Your task to perform on an android device: Go to wifi settings Image 0: 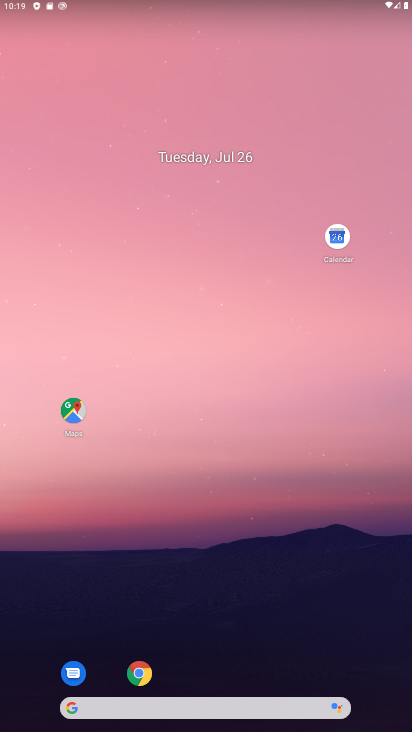
Step 0: click (169, 121)
Your task to perform on an android device: Go to wifi settings Image 1: 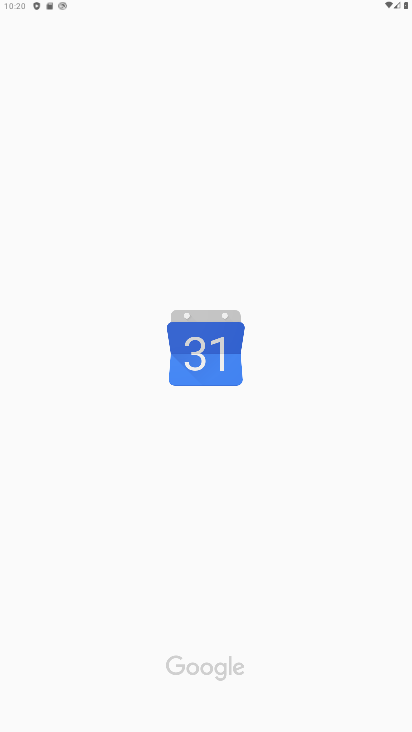
Step 1: drag from (213, 43) to (245, 18)
Your task to perform on an android device: Go to wifi settings Image 2: 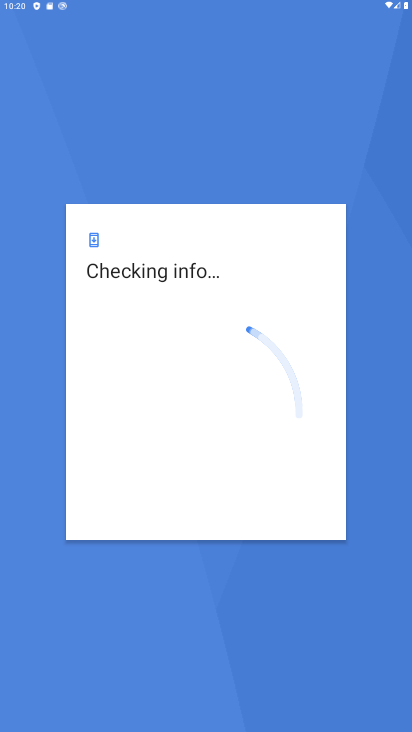
Step 2: press back button
Your task to perform on an android device: Go to wifi settings Image 3: 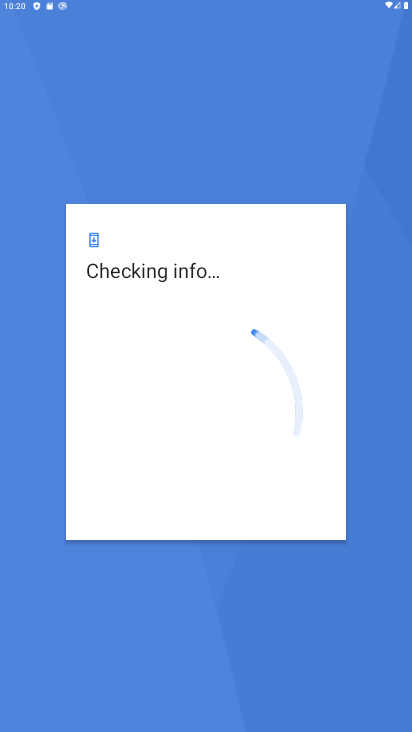
Step 3: press back button
Your task to perform on an android device: Go to wifi settings Image 4: 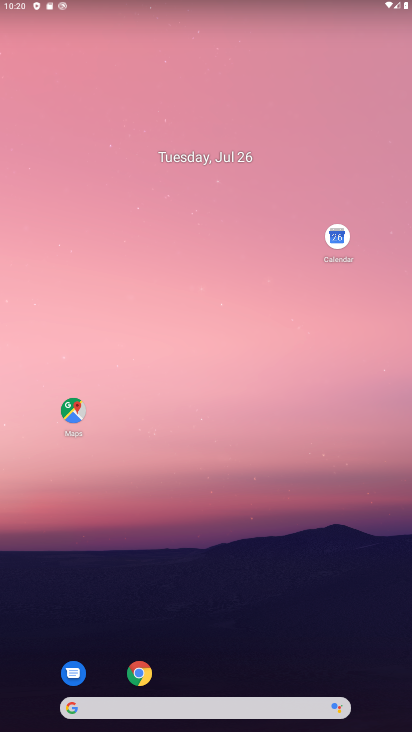
Step 4: press home button
Your task to perform on an android device: Go to wifi settings Image 5: 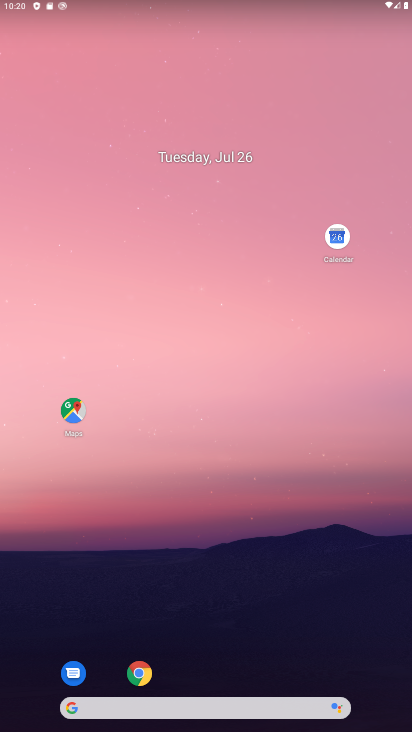
Step 5: click (145, 60)
Your task to perform on an android device: Go to wifi settings Image 6: 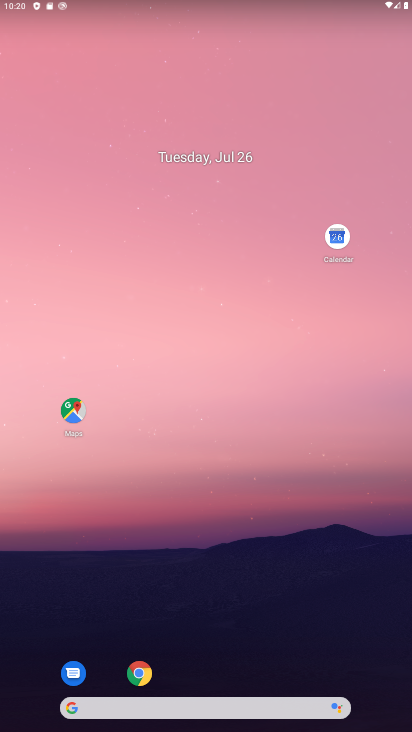
Step 6: click (232, 11)
Your task to perform on an android device: Go to wifi settings Image 7: 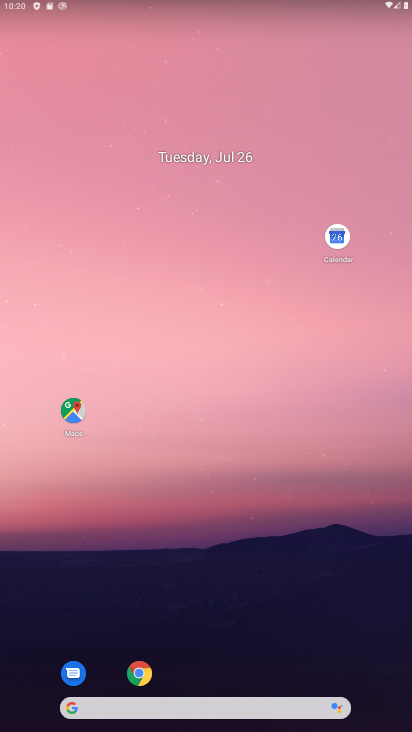
Step 7: click (173, 114)
Your task to perform on an android device: Go to wifi settings Image 8: 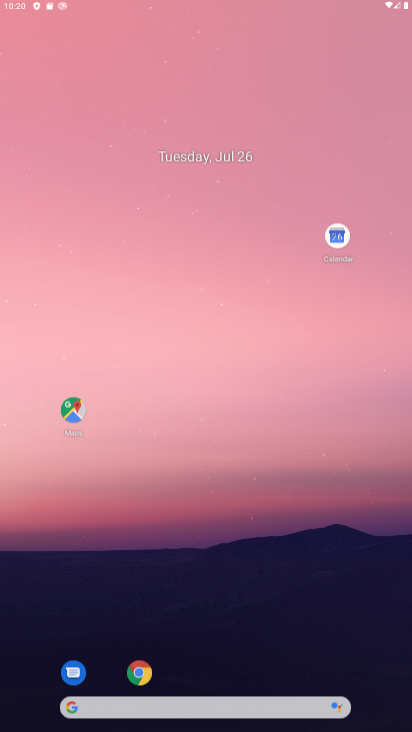
Step 8: click (154, 143)
Your task to perform on an android device: Go to wifi settings Image 9: 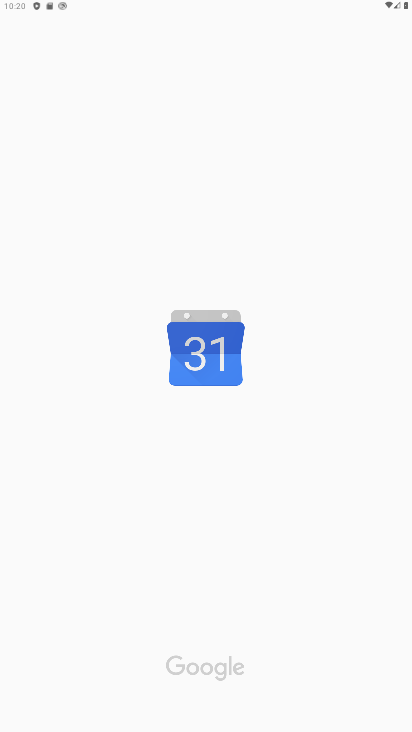
Step 9: click (120, 53)
Your task to perform on an android device: Go to wifi settings Image 10: 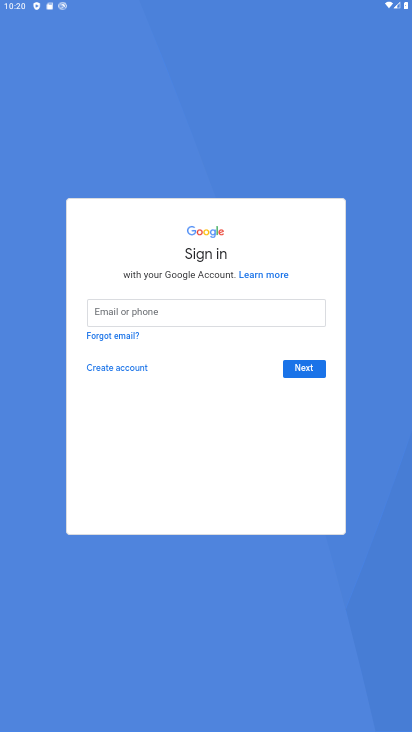
Step 10: click (118, 106)
Your task to perform on an android device: Go to wifi settings Image 11: 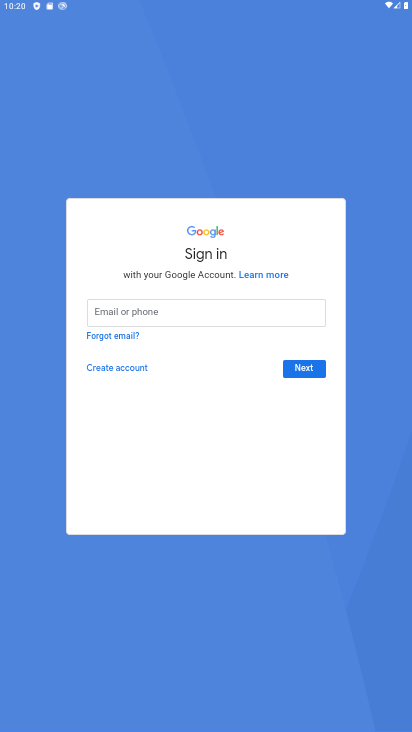
Step 11: click (117, 107)
Your task to perform on an android device: Go to wifi settings Image 12: 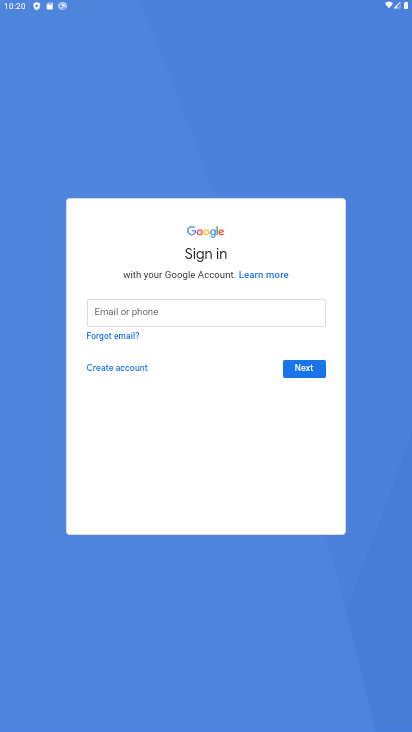
Step 12: press back button
Your task to perform on an android device: Go to wifi settings Image 13: 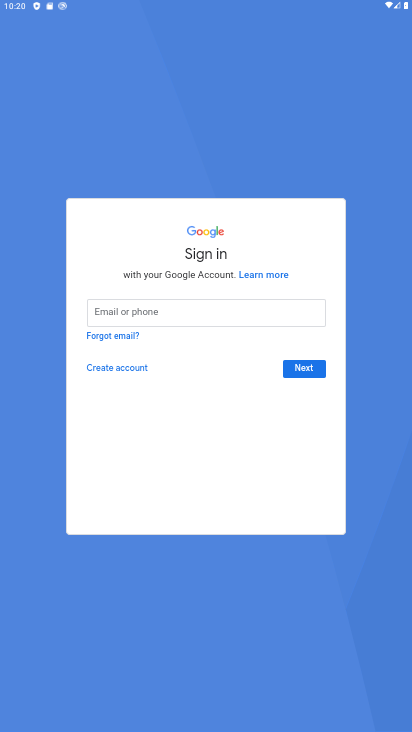
Step 13: press back button
Your task to perform on an android device: Go to wifi settings Image 14: 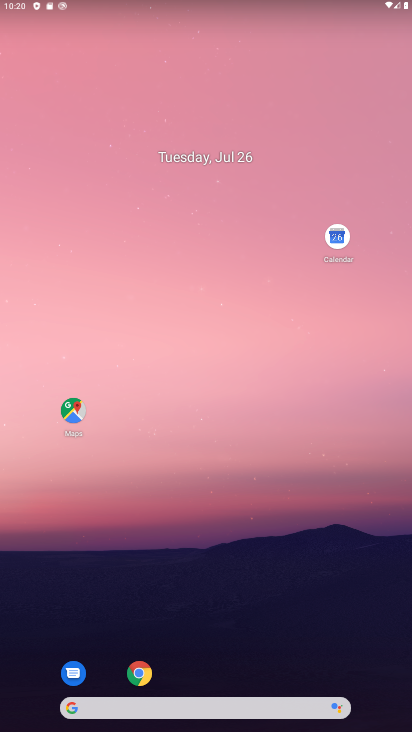
Step 14: drag from (189, 394) to (119, 35)
Your task to perform on an android device: Go to wifi settings Image 15: 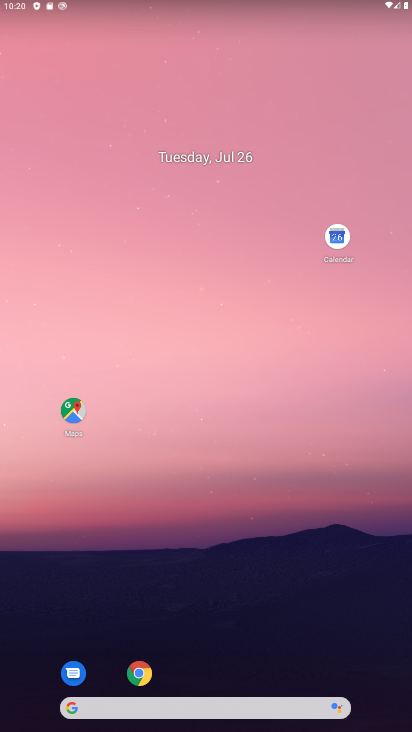
Step 15: drag from (197, 519) to (137, 103)
Your task to perform on an android device: Go to wifi settings Image 16: 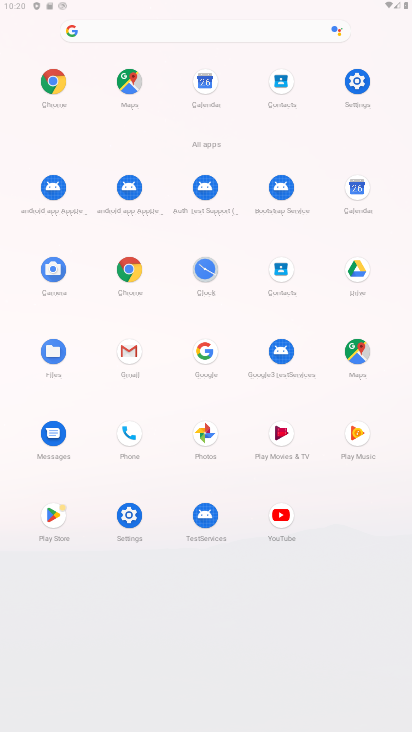
Step 16: drag from (195, 451) to (132, 20)
Your task to perform on an android device: Go to wifi settings Image 17: 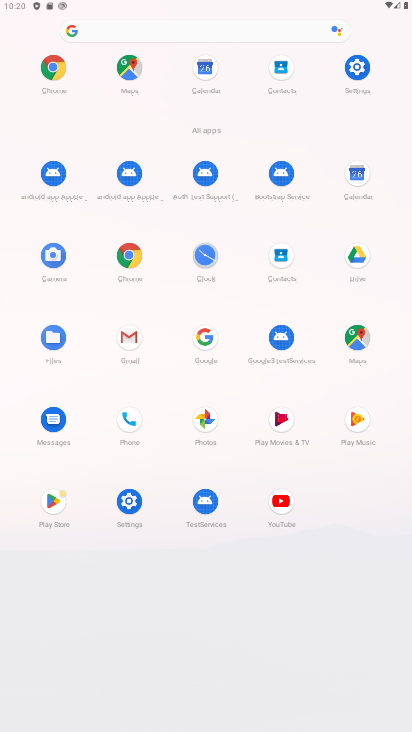
Step 17: drag from (271, 509) to (212, 148)
Your task to perform on an android device: Go to wifi settings Image 18: 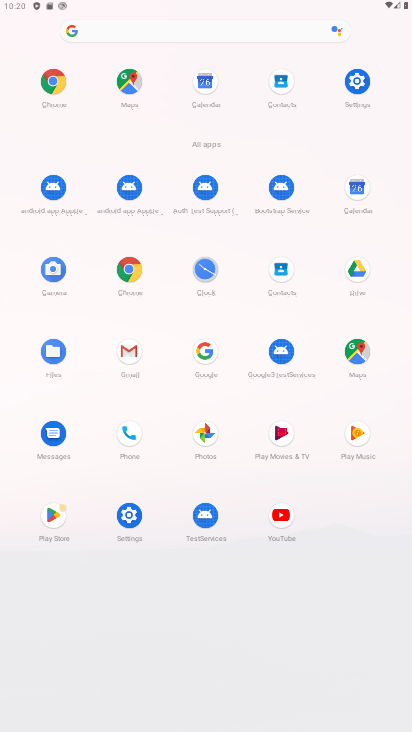
Step 18: click (129, 514)
Your task to perform on an android device: Go to wifi settings Image 19: 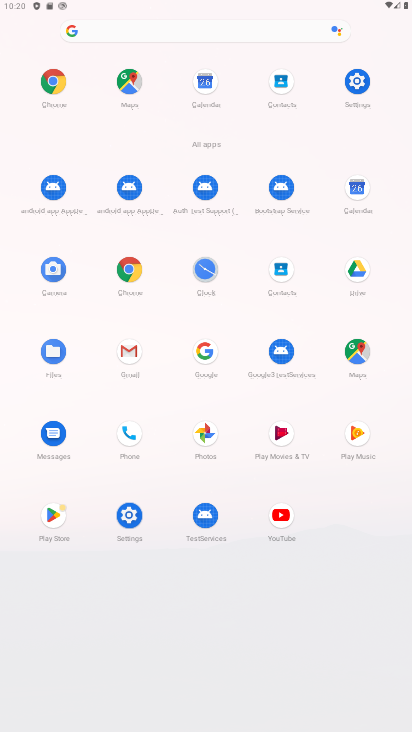
Step 19: click (129, 514)
Your task to perform on an android device: Go to wifi settings Image 20: 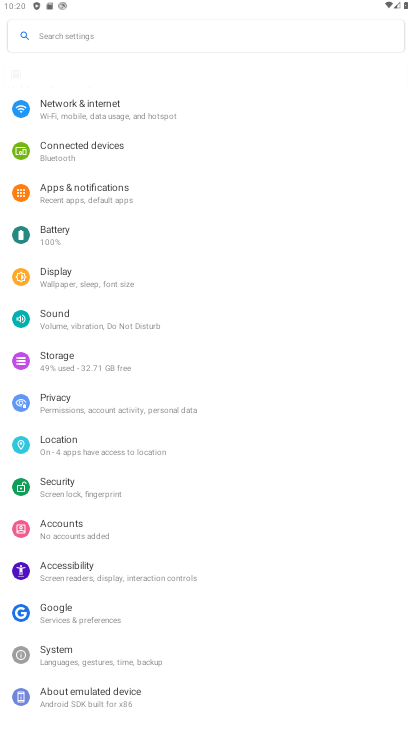
Step 20: click (134, 502)
Your task to perform on an android device: Go to wifi settings Image 21: 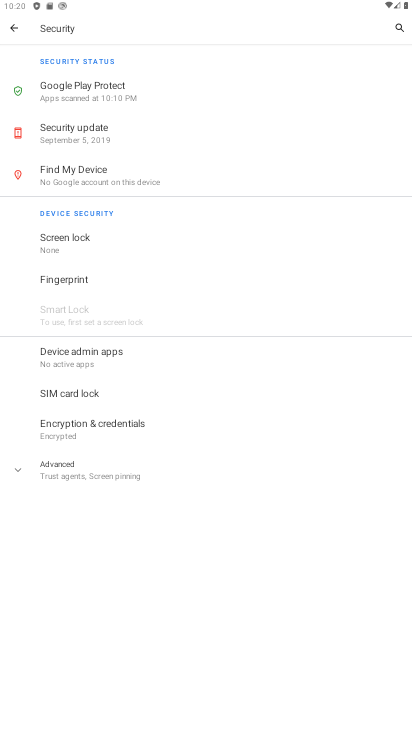
Step 21: click (15, 27)
Your task to perform on an android device: Go to wifi settings Image 22: 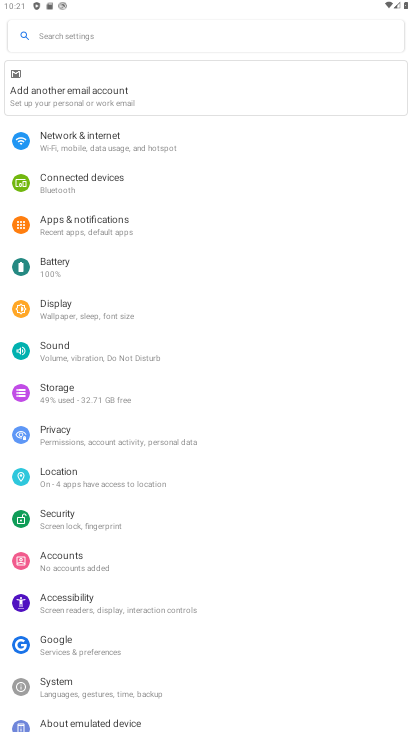
Step 22: drag from (109, 537) to (114, 201)
Your task to perform on an android device: Go to wifi settings Image 23: 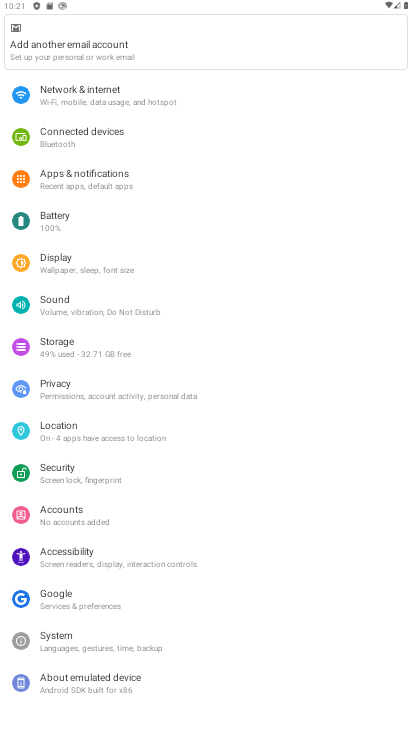
Step 23: drag from (155, 455) to (119, 237)
Your task to perform on an android device: Go to wifi settings Image 24: 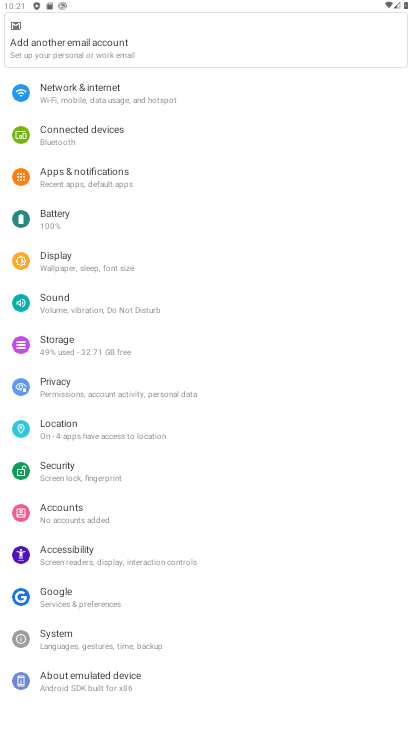
Step 24: click (91, 177)
Your task to perform on an android device: Go to wifi settings Image 25: 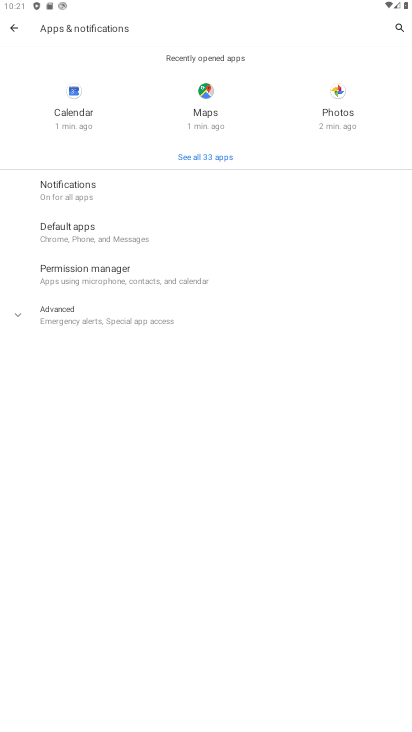
Step 25: click (9, 21)
Your task to perform on an android device: Go to wifi settings Image 26: 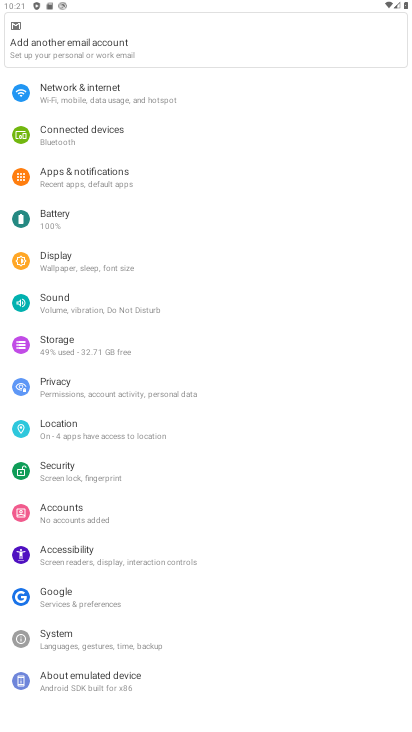
Step 26: drag from (70, 286) to (75, 331)
Your task to perform on an android device: Go to wifi settings Image 27: 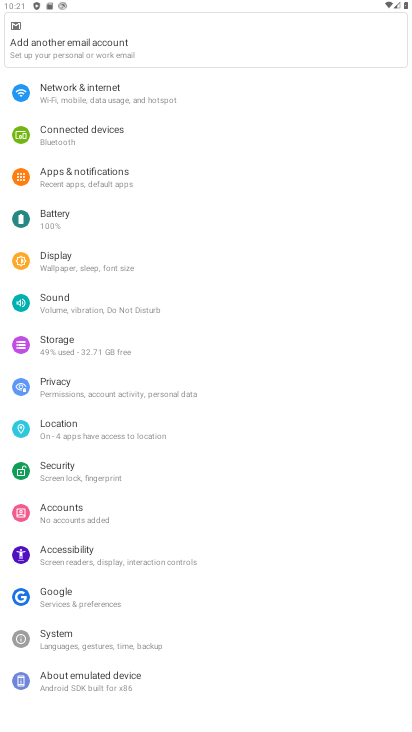
Step 27: click (89, 100)
Your task to perform on an android device: Go to wifi settings Image 28: 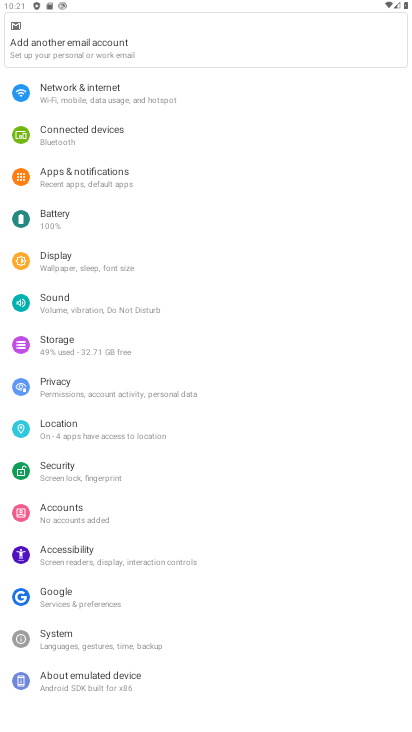
Step 28: click (89, 100)
Your task to perform on an android device: Go to wifi settings Image 29: 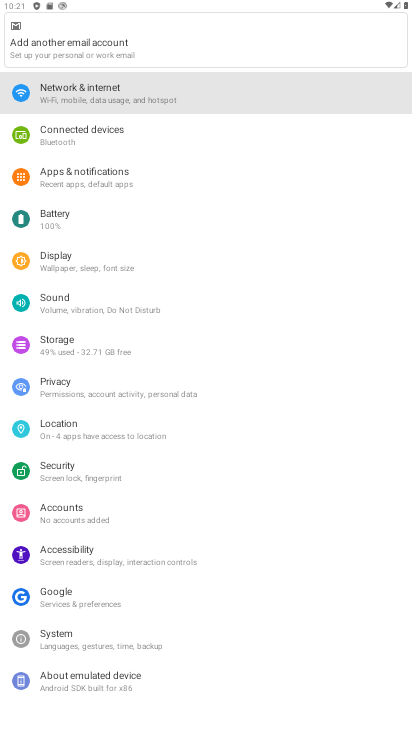
Step 29: click (90, 101)
Your task to perform on an android device: Go to wifi settings Image 30: 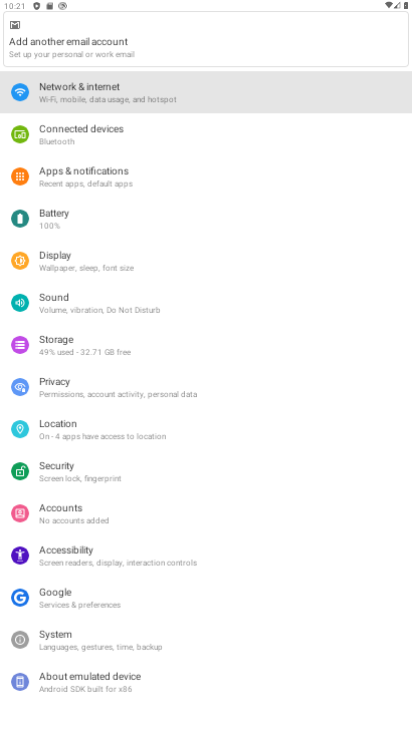
Step 30: click (91, 100)
Your task to perform on an android device: Go to wifi settings Image 31: 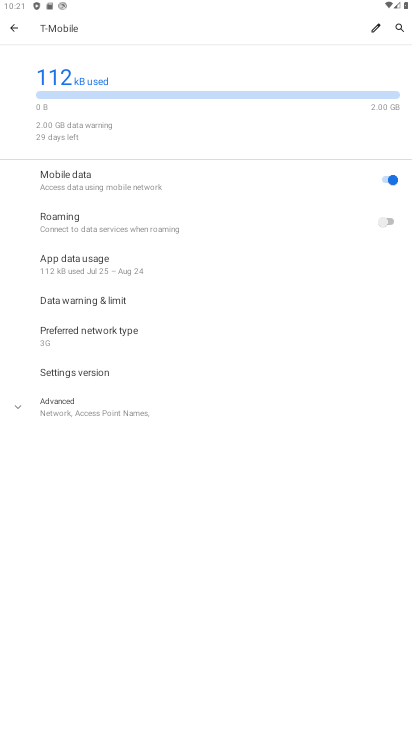
Step 31: click (9, 30)
Your task to perform on an android device: Go to wifi settings Image 32: 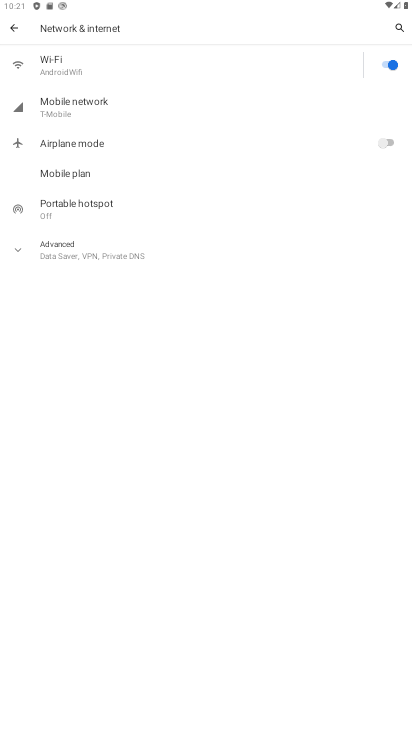
Step 32: task complete